Your task to perform on an android device: Open Google Chrome and click the shortcut for Amazon.com Image 0: 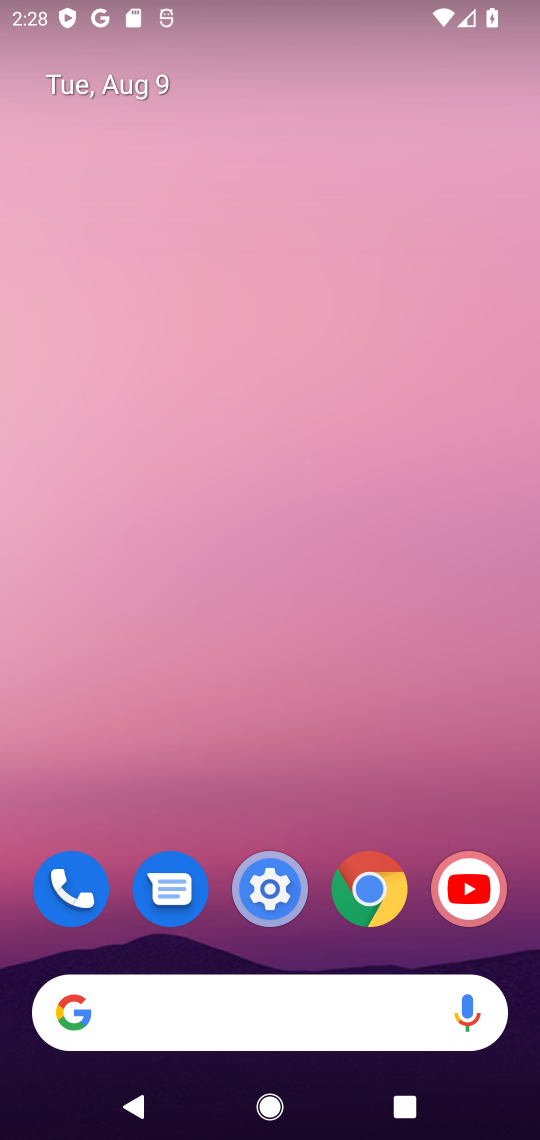
Step 0: click (371, 886)
Your task to perform on an android device: Open Google Chrome and click the shortcut for Amazon.com Image 1: 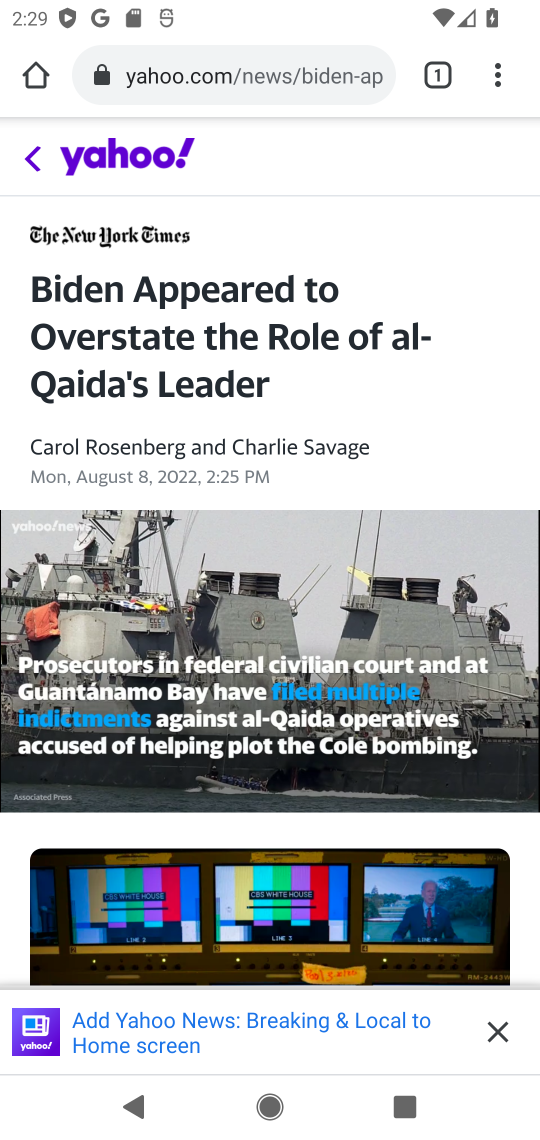
Step 1: press back button
Your task to perform on an android device: Open Google Chrome and click the shortcut for Amazon.com Image 2: 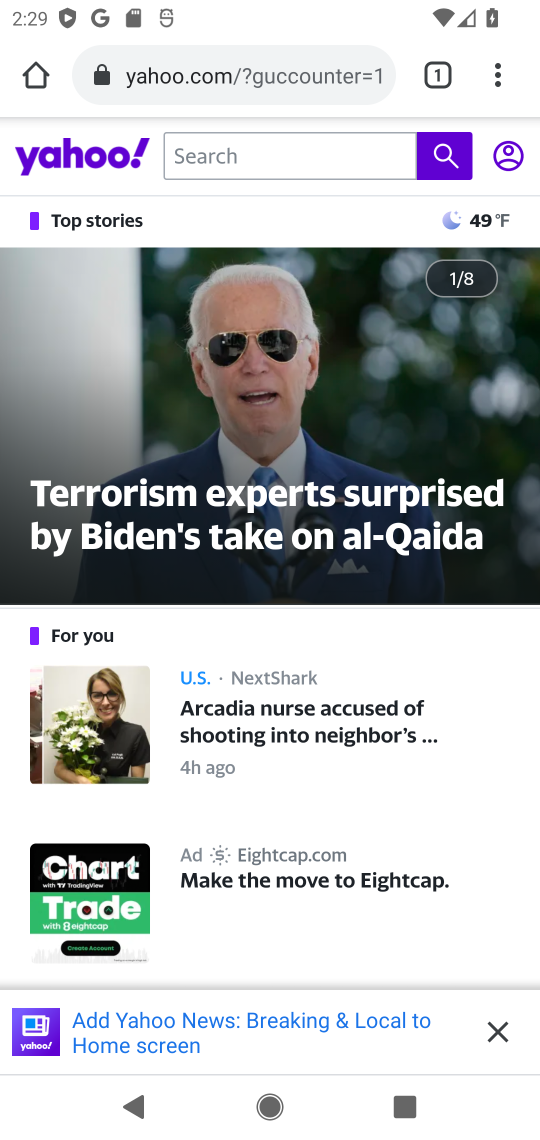
Step 2: press back button
Your task to perform on an android device: Open Google Chrome and click the shortcut for Amazon.com Image 3: 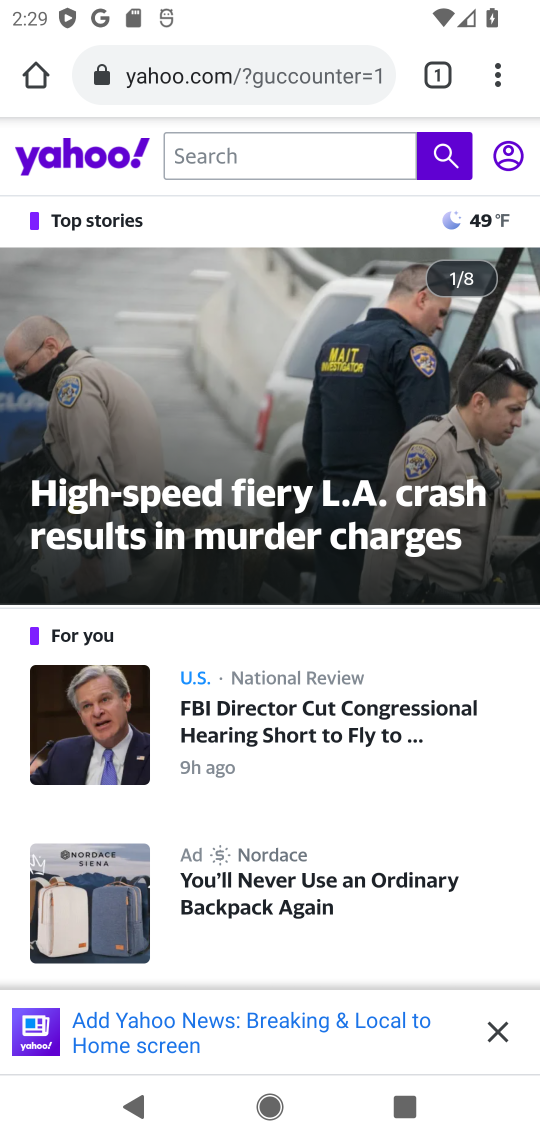
Step 3: click (495, 77)
Your task to perform on an android device: Open Google Chrome and click the shortcut for Amazon.com Image 4: 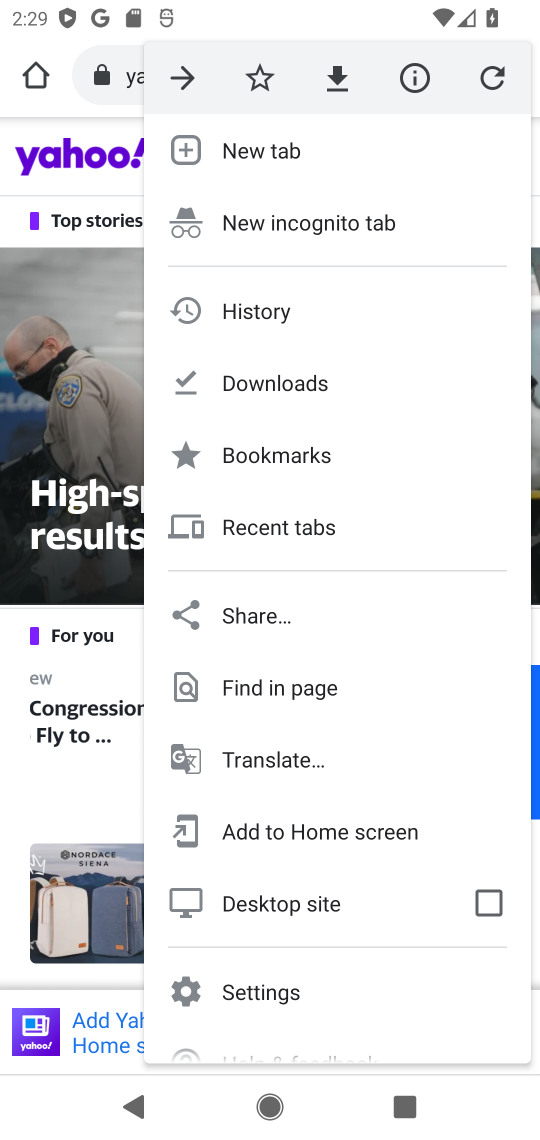
Step 4: click (418, 144)
Your task to perform on an android device: Open Google Chrome and click the shortcut for Amazon.com Image 5: 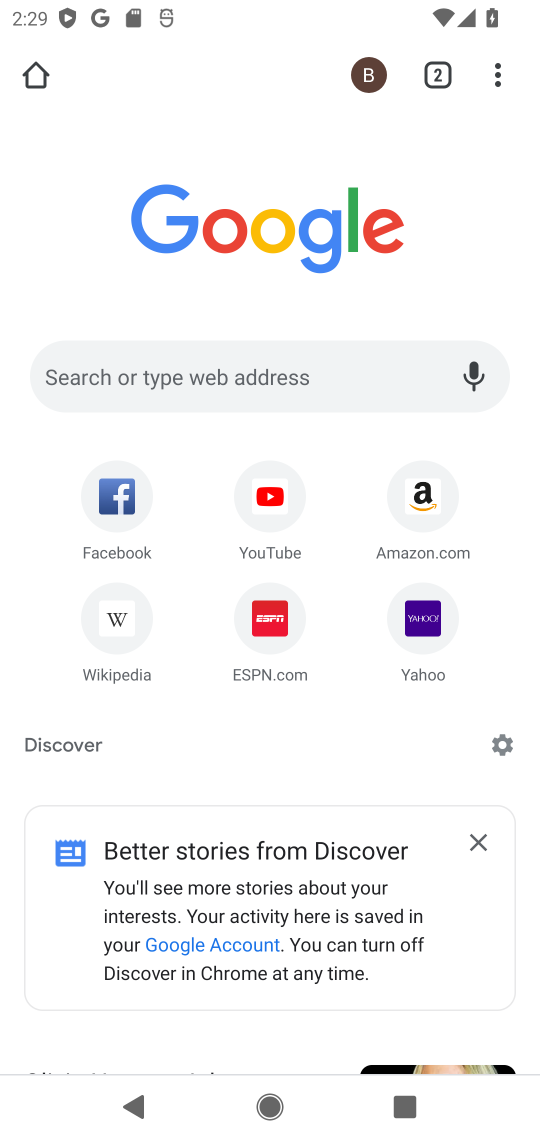
Step 5: click (418, 482)
Your task to perform on an android device: Open Google Chrome and click the shortcut for Amazon.com Image 6: 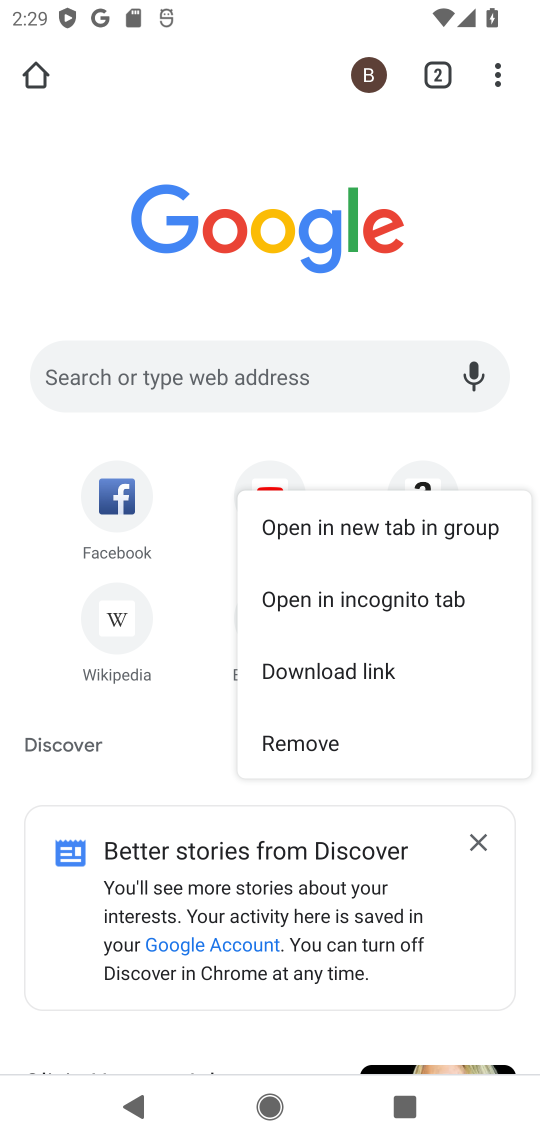
Step 6: click (432, 443)
Your task to perform on an android device: Open Google Chrome and click the shortcut for Amazon.com Image 7: 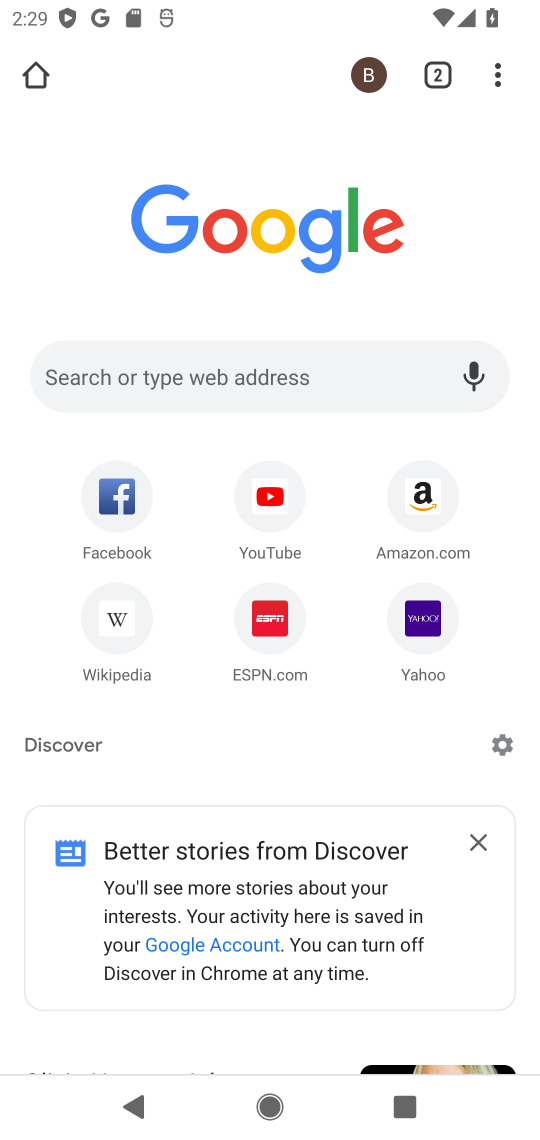
Step 7: click (426, 501)
Your task to perform on an android device: Open Google Chrome and click the shortcut for Amazon.com Image 8: 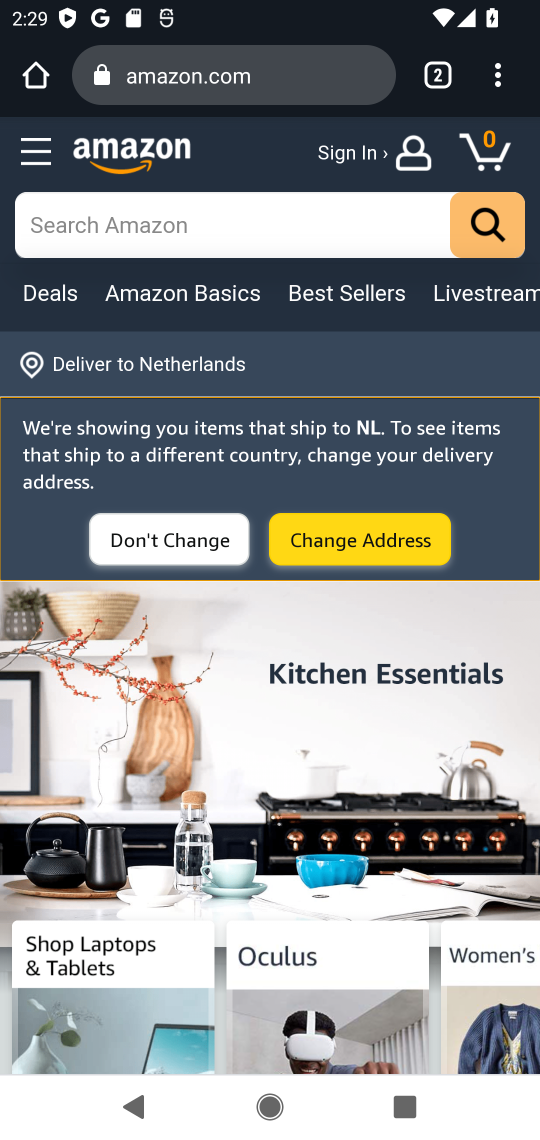
Step 8: click (218, 536)
Your task to perform on an android device: Open Google Chrome and click the shortcut for Amazon.com Image 9: 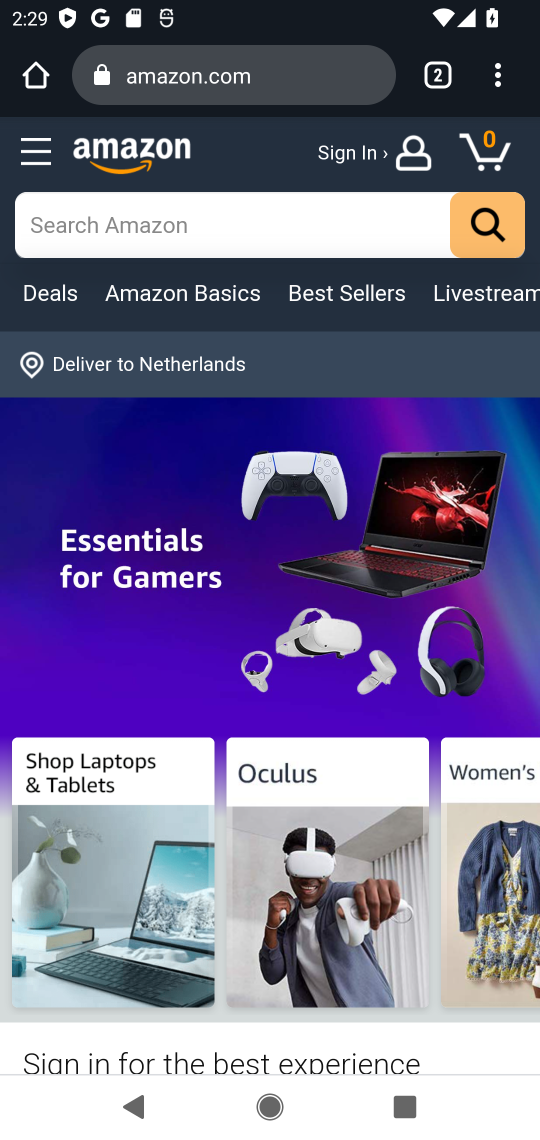
Step 9: task complete